Your task to perform on an android device: Go to settings Image 0: 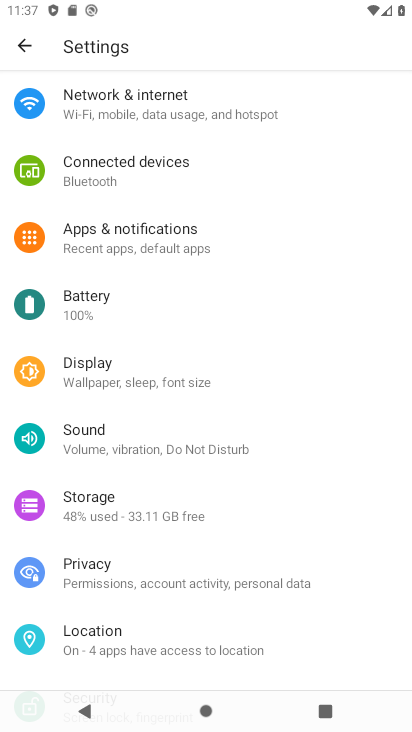
Step 0: drag from (260, 565) to (239, 171)
Your task to perform on an android device: Go to settings Image 1: 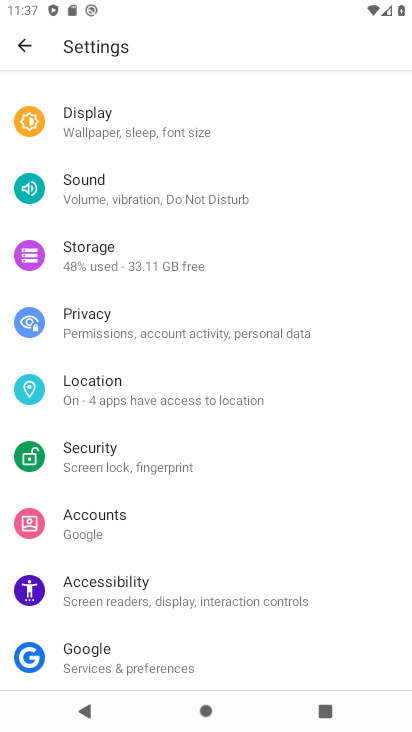
Step 1: task complete